Your task to perform on an android device: empty trash in google photos Image 0: 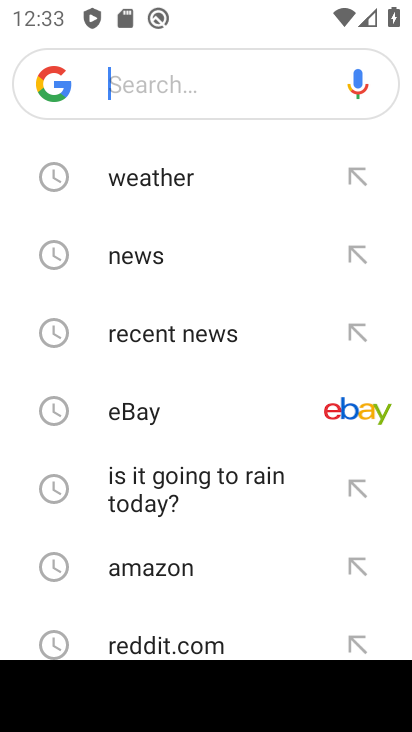
Step 0: press home button
Your task to perform on an android device: empty trash in google photos Image 1: 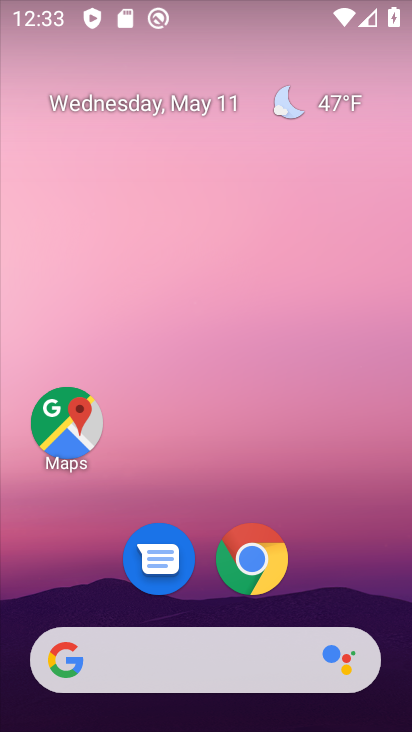
Step 1: drag from (201, 587) to (224, 85)
Your task to perform on an android device: empty trash in google photos Image 2: 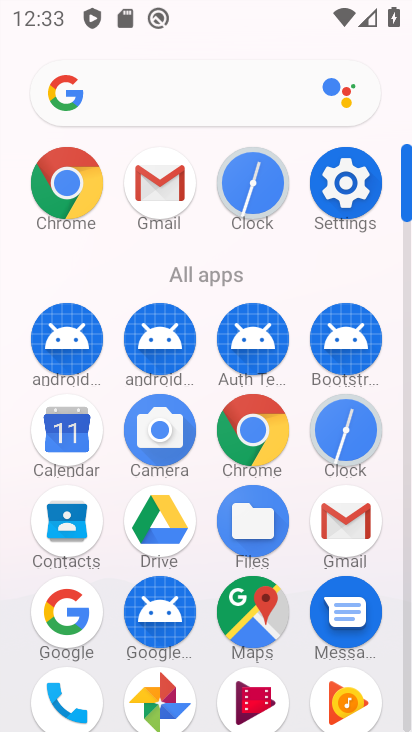
Step 2: drag from (214, 569) to (254, 103)
Your task to perform on an android device: empty trash in google photos Image 3: 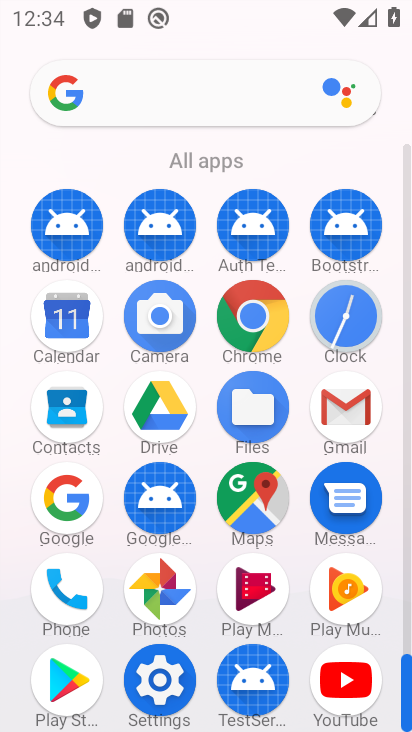
Step 3: click (148, 605)
Your task to perform on an android device: empty trash in google photos Image 4: 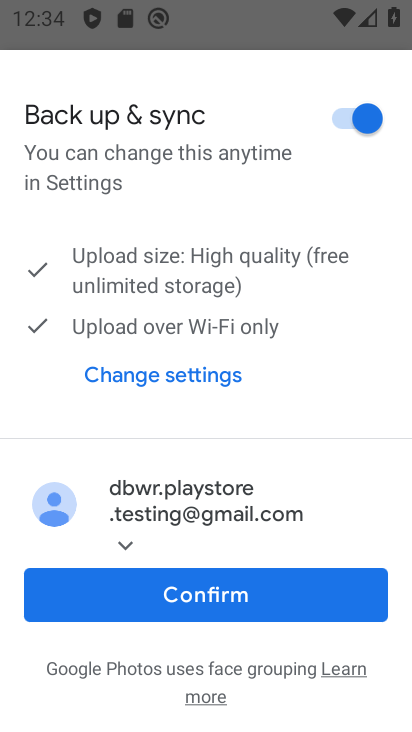
Step 4: click (192, 601)
Your task to perform on an android device: empty trash in google photos Image 5: 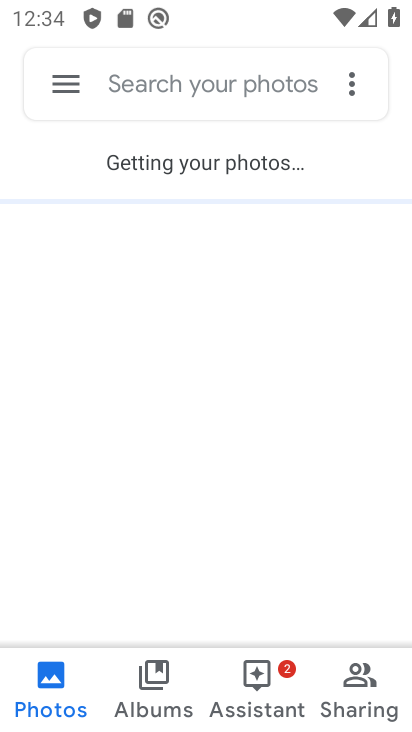
Step 5: click (74, 92)
Your task to perform on an android device: empty trash in google photos Image 6: 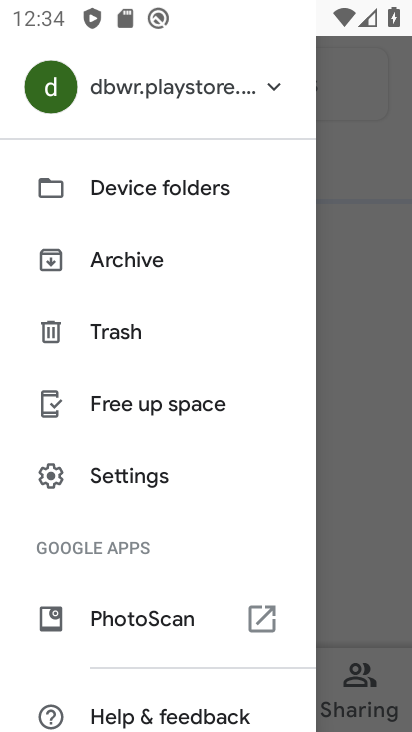
Step 6: click (116, 341)
Your task to perform on an android device: empty trash in google photos Image 7: 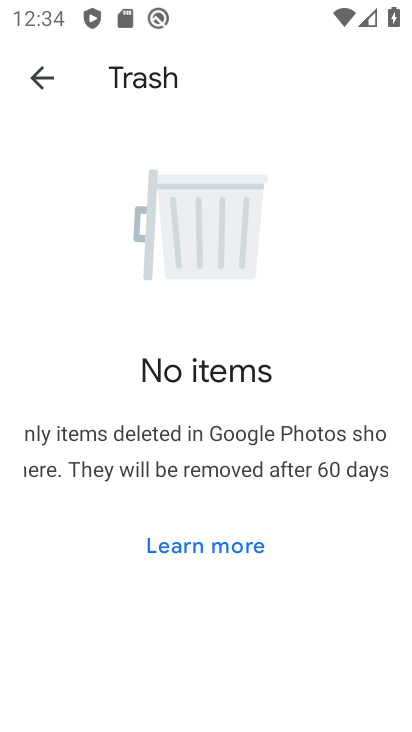
Step 7: task complete